Your task to perform on an android device: Play the new Katy Perry video on YouTube Image 0: 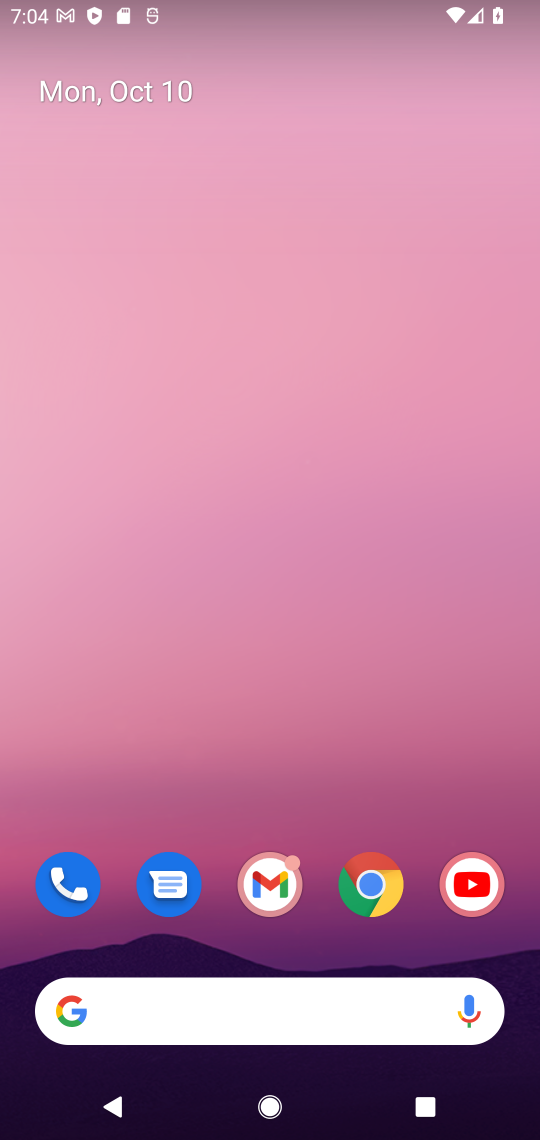
Step 0: click (479, 884)
Your task to perform on an android device: Play the new Katy Perry video on YouTube Image 1: 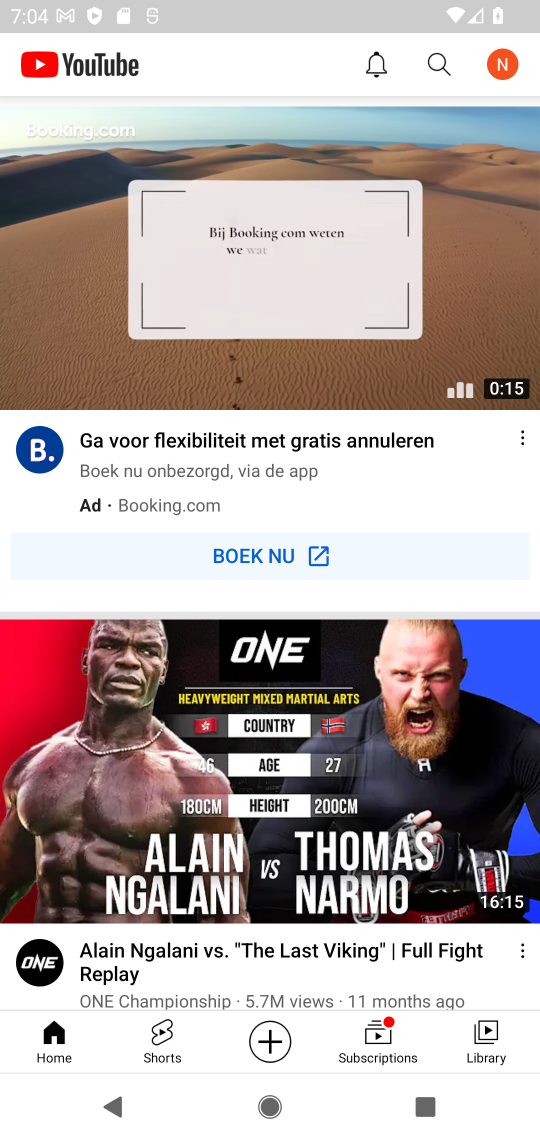
Step 1: click (432, 72)
Your task to perform on an android device: Play the new Katy Perry video on YouTube Image 2: 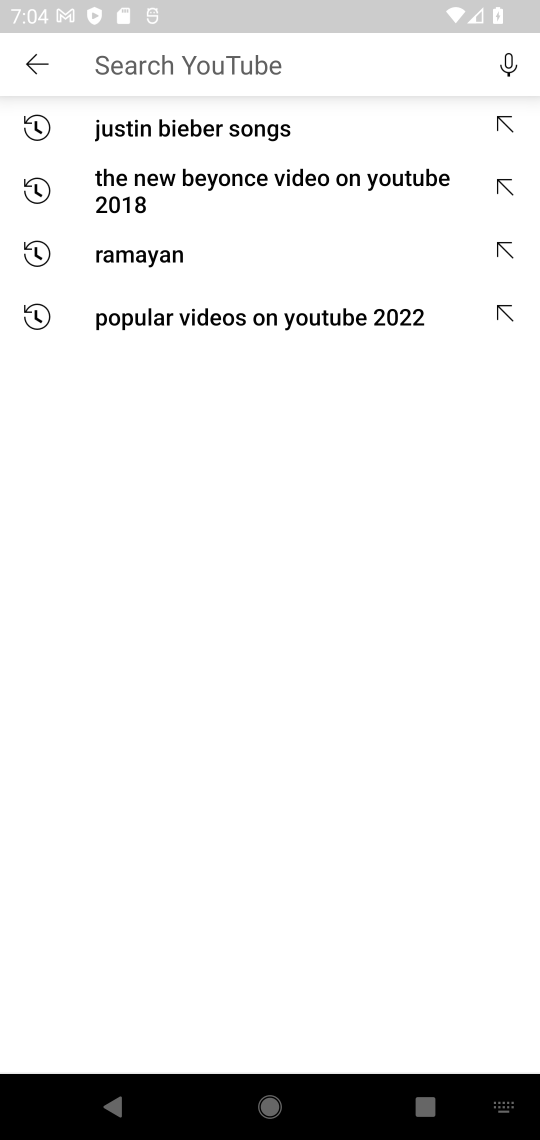
Step 2: type "katy perry"
Your task to perform on an android device: Play the new Katy Perry video on YouTube Image 3: 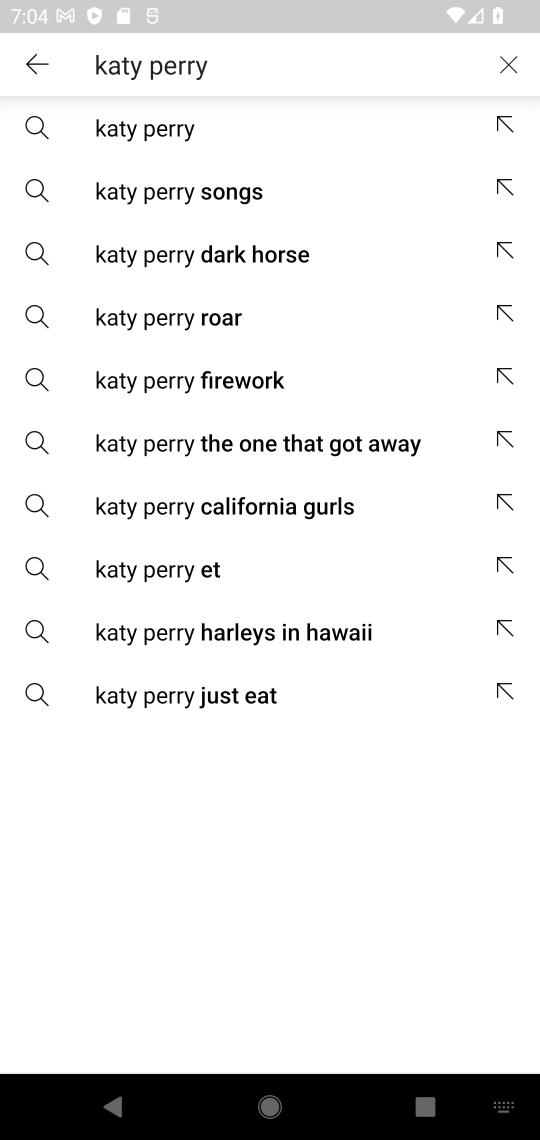
Step 3: click (204, 122)
Your task to perform on an android device: Play the new Katy Perry video on YouTube Image 4: 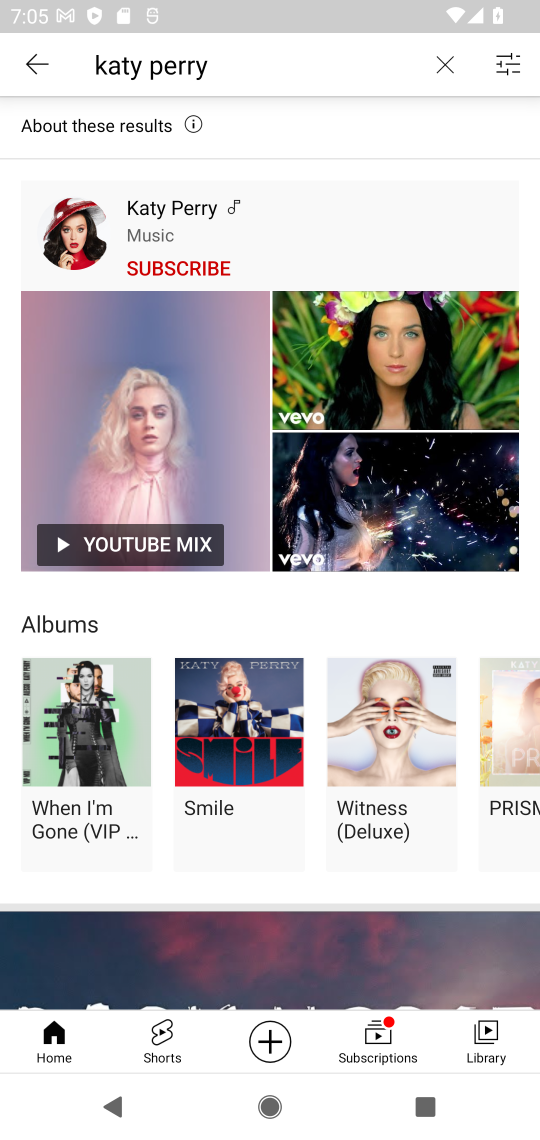
Step 4: click (172, 211)
Your task to perform on an android device: Play the new Katy Perry video on YouTube Image 5: 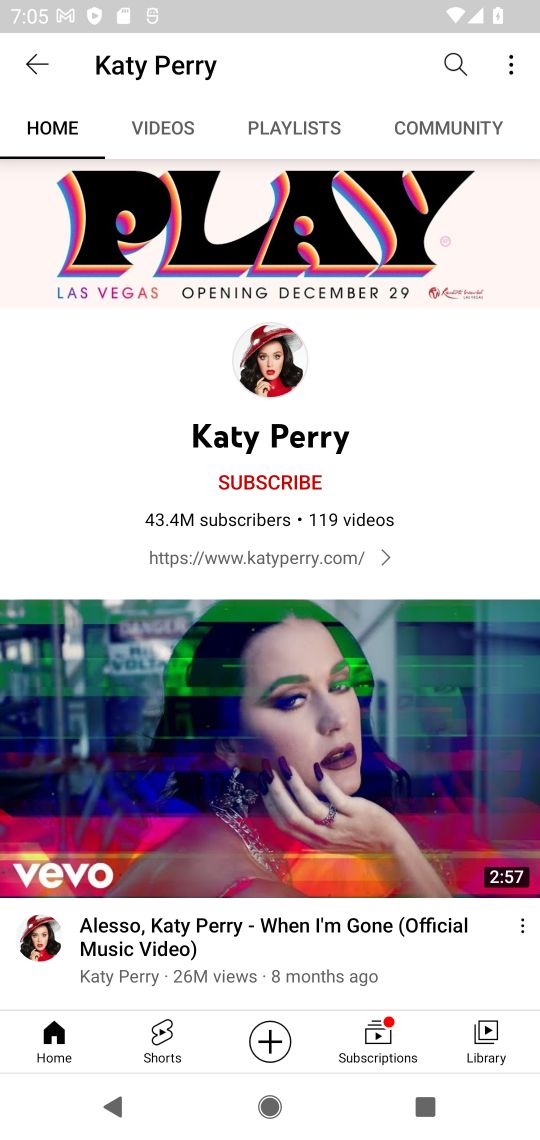
Step 5: click (181, 133)
Your task to perform on an android device: Play the new Katy Perry video on YouTube Image 6: 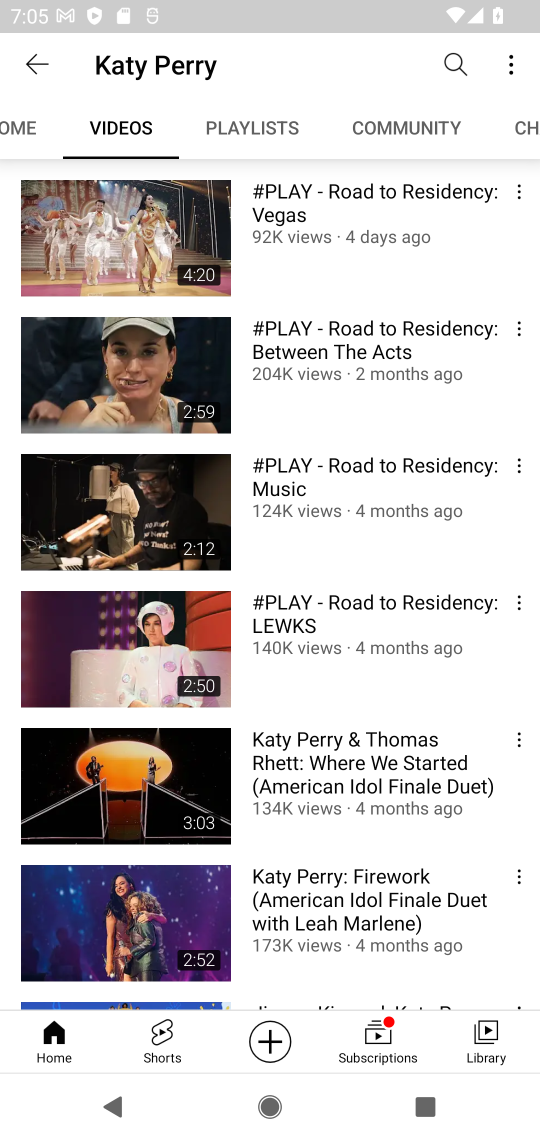
Step 6: click (458, 226)
Your task to perform on an android device: Play the new Katy Perry video on YouTube Image 7: 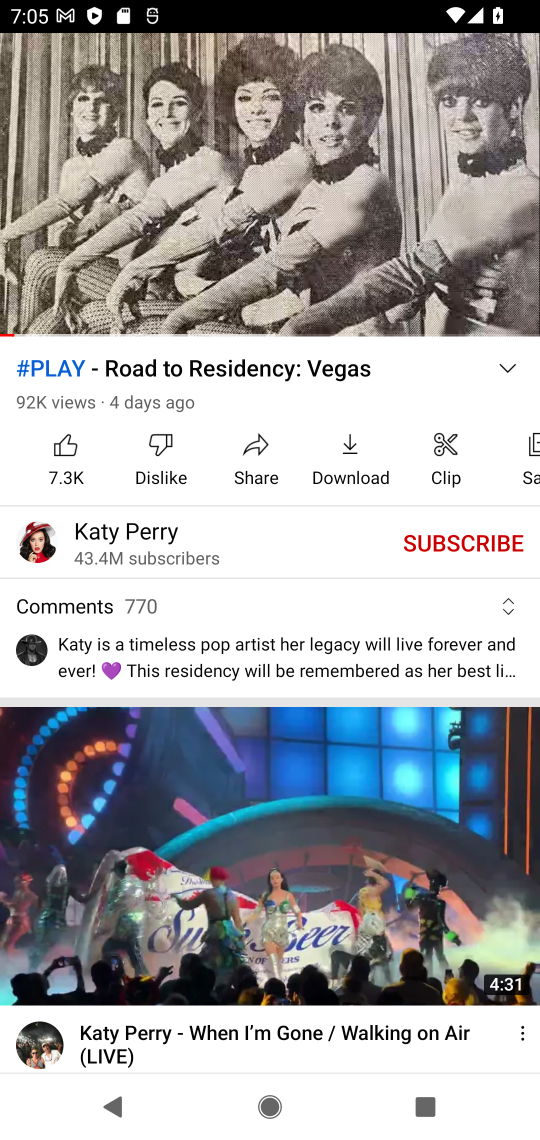
Step 7: task complete